Your task to perform on an android device: toggle pop-ups in chrome Image 0: 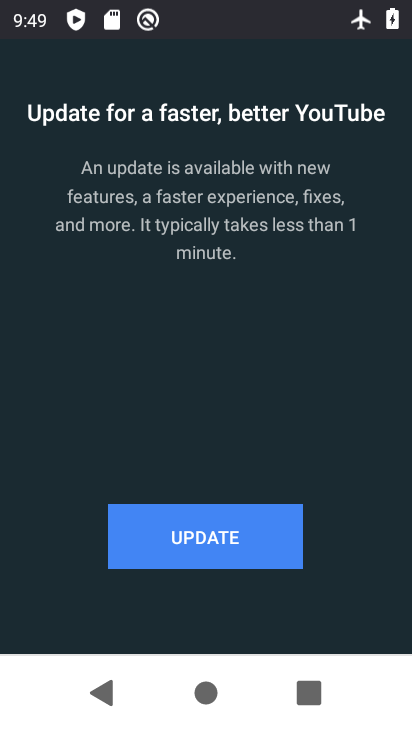
Step 0: press home button
Your task to perform on an android device: toggle pop-ups in chrome Image 1: 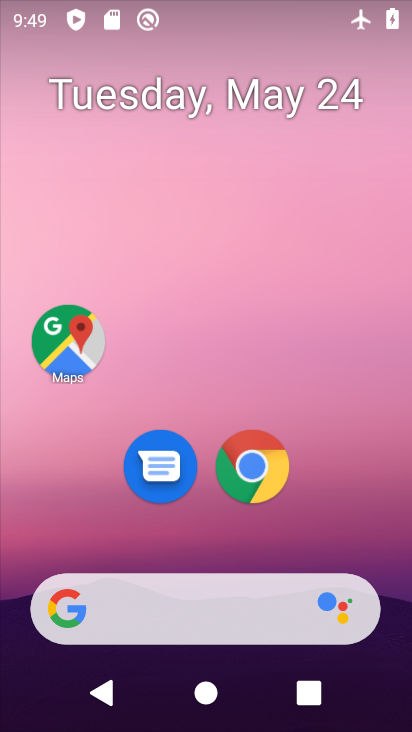
Step 1: click (281, 456)
Your task to perform on an android device: toggle pop-ups in chrome Image 2: 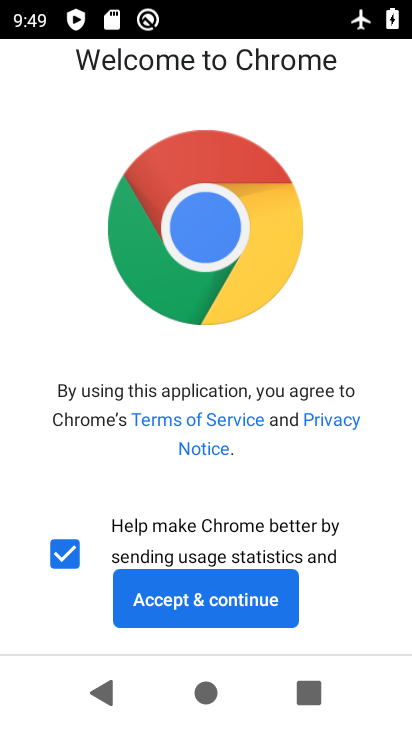
Step 2: click (242, 607)
Your task to perform on an android device: toggle pop-ups in chrome Image 3: 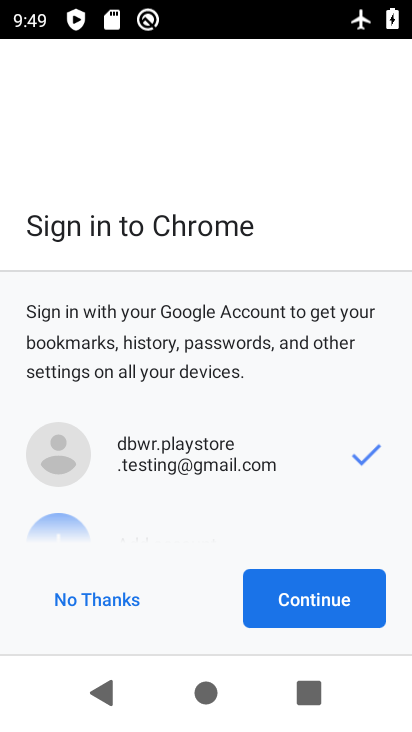
Step 3: click (283, 611)
Your task to perform on an android device: toggle pop-ups in chrome Image 4: 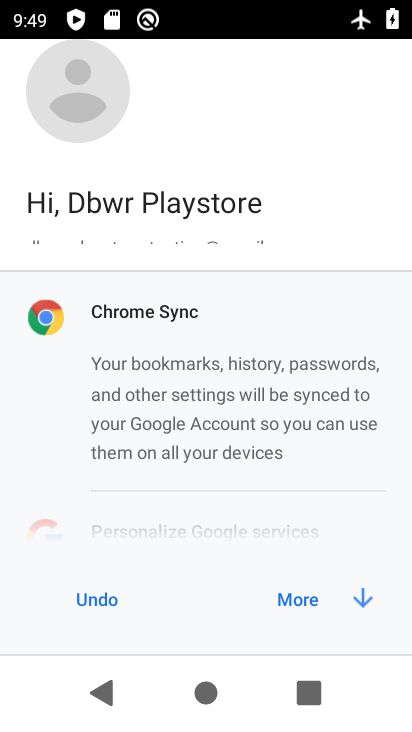
Step 4: click (290, 604)
Your task to perform on an android device: toggle pop-ups in chrome Image 5: 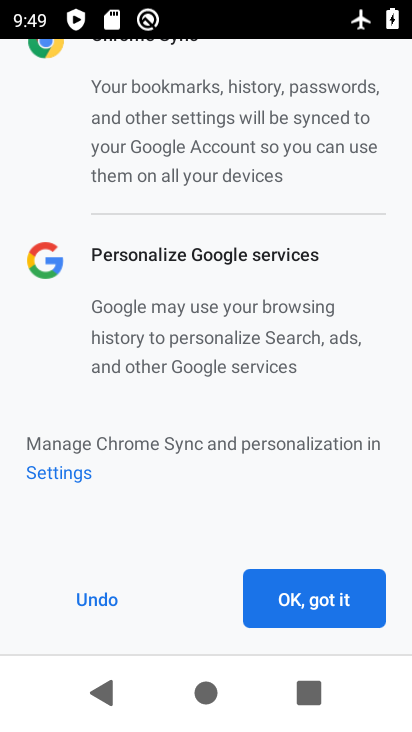
Step 5: click (291, 606)
Your task to perform on an android device: toggle pop-ups in chrome Image 6: 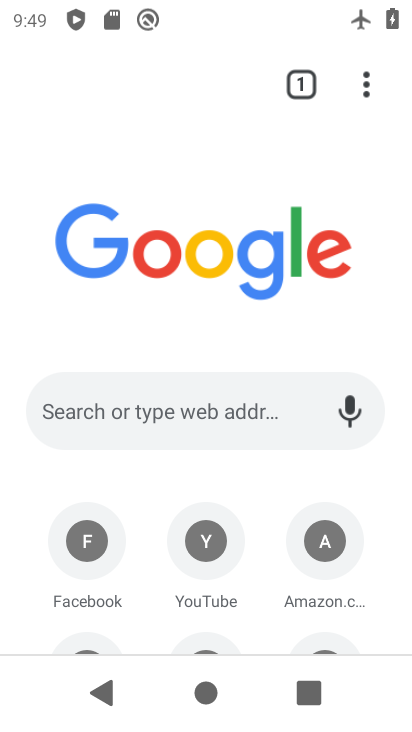
Step 6: click (366, 81)
Your task to perform on an android device: toggle pop-ups in chrome Image 7: 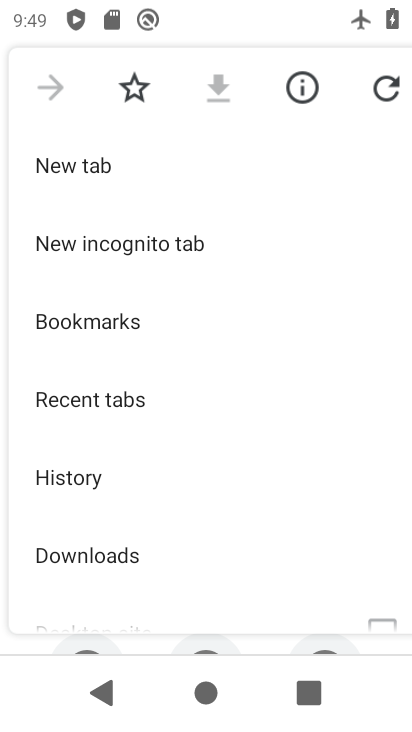
Step 7: drag from (128, 498) to (167, 163)
Your task to perform on an android device: toggle pop-ups in chrome Image 8: 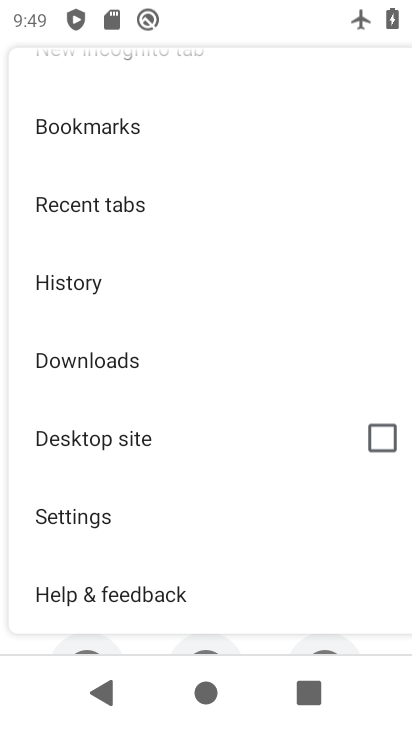
Step 8: click (125, 516)
Your task to perform on an android device: toggle pop-ups in chrome Image 9: 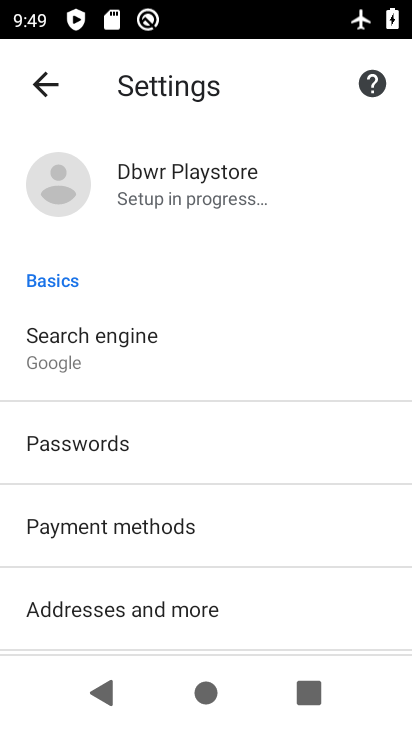
Step 9: drag from (150, 564) to (170, 251)
Your task to perform on an android device: toggle pop-ups in chrome Image 10: 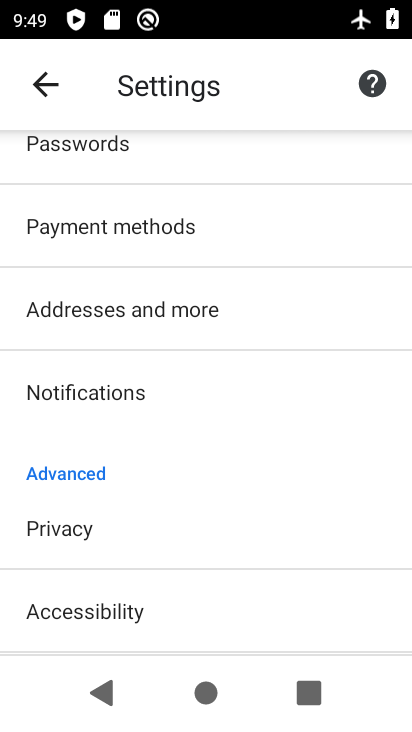
Step 10: drag from (136, 610) to (190, 220)
Your task to perform on an android device: toggle pop-ups in chrome Image 11: 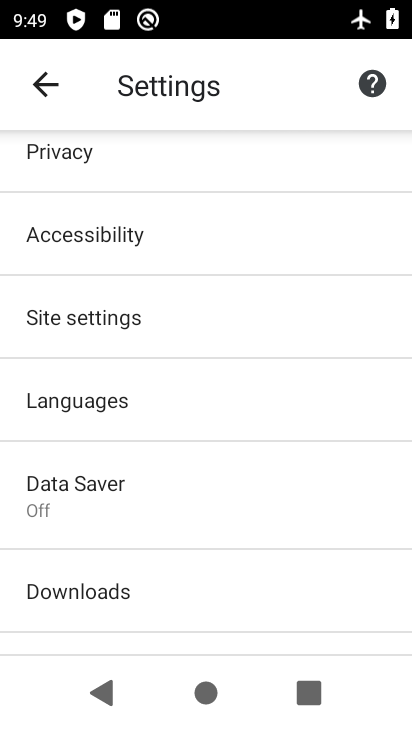
Step 11: click (125, 323)
Your task to perform on an android device: toggle pop-ups in chrome Image 12: 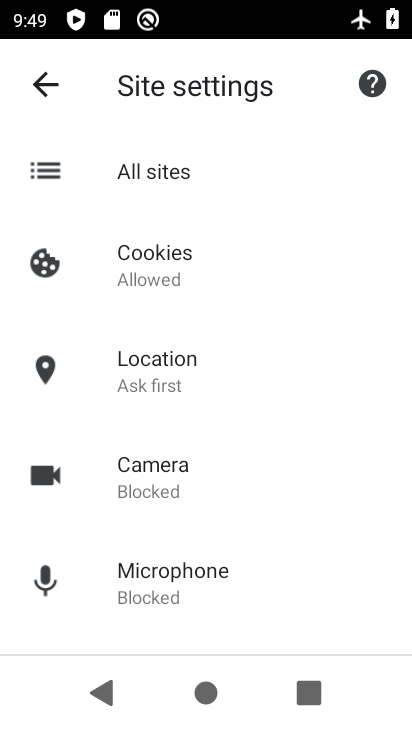
Step 12: drag from (200, 534) to (224, 242)
Your task to perform on an android device: toggle pop-ups in chrome Image 13: 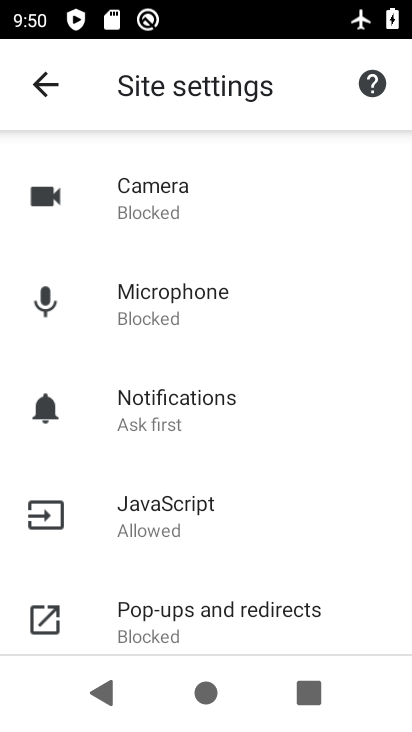
Step 13: click (195, 612)
Your task to perform on an android device: toggle pop-ups in chrome Image 14: 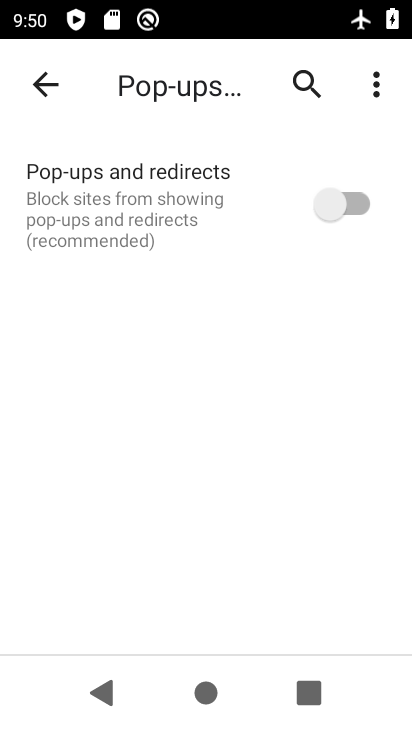
Step 14: click (382, 199)
Your task to perform on an android device: toggle pop-ups in chrome Image 15: 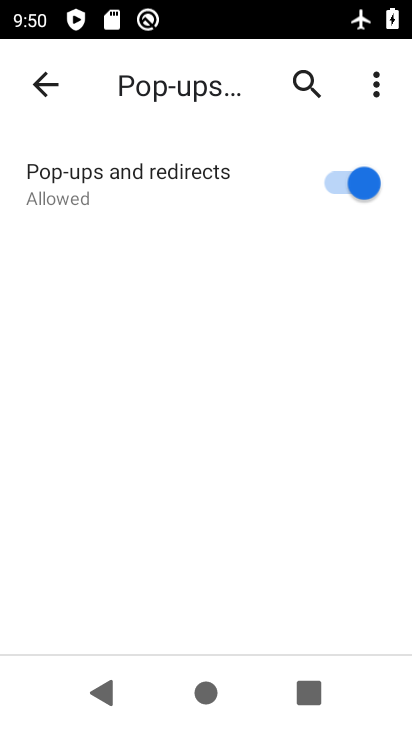
Step 15: task complete